Your task to perform on an android device: delete browsing data in the chrome app Image 0: 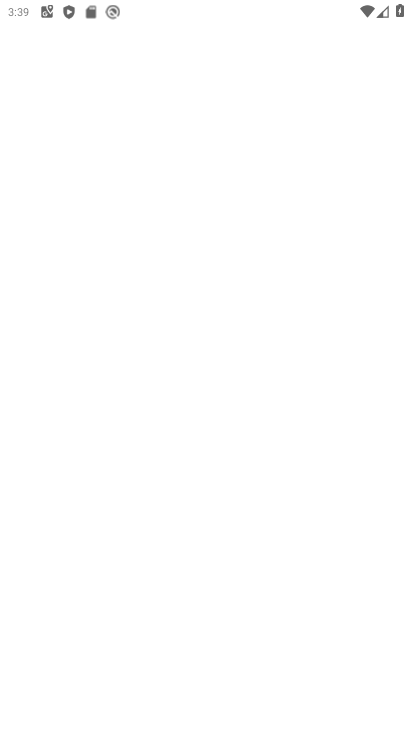
Step 0: press home button
Your task to perform on an android device: delete browsing data in the chrome app Image 1: 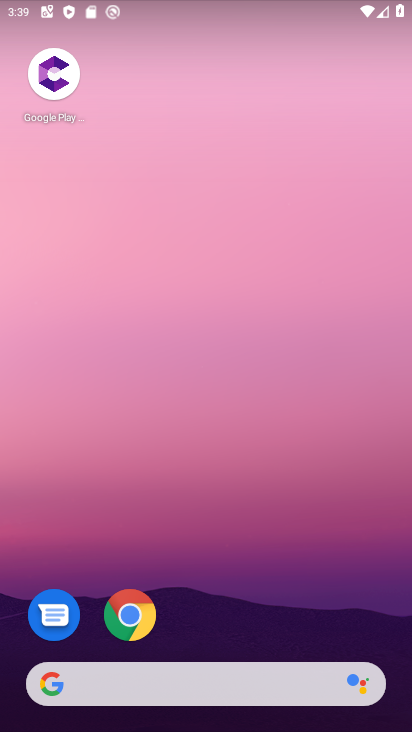
Step 1: click (139, 627)
Your task to perform on an android device: delete browsing data in the chrome app Image 2: 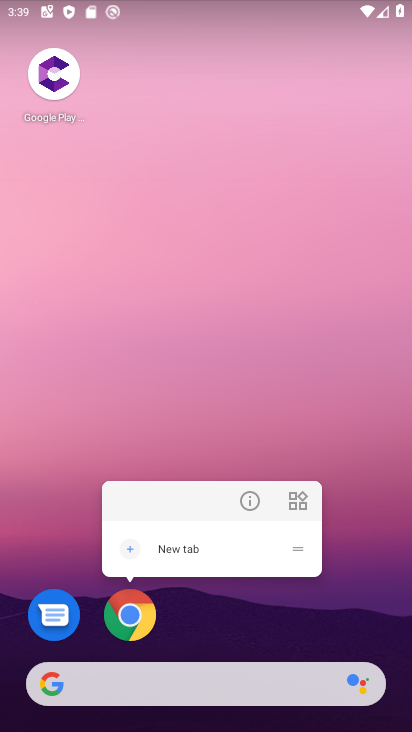
Step 2: click (135, 620)
Your task to perform on an android device: delete browsing data in the chrome app Image 3: 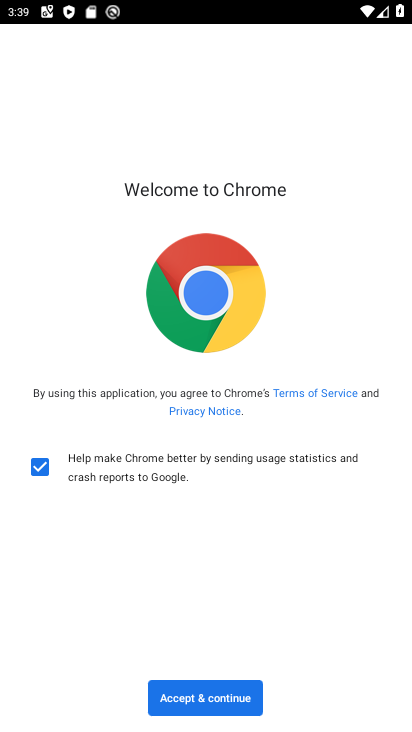
Step 3: click (224, 713)
Your task to perform on an android device: delete browsing data in the chrome app Image 4: 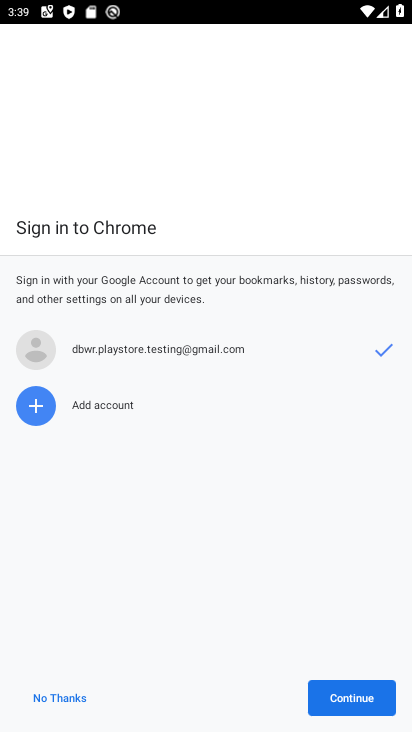
Step 4: click (362, 704)
Your task to perform on an android device: delete browsing data in the chrome app Image 5: 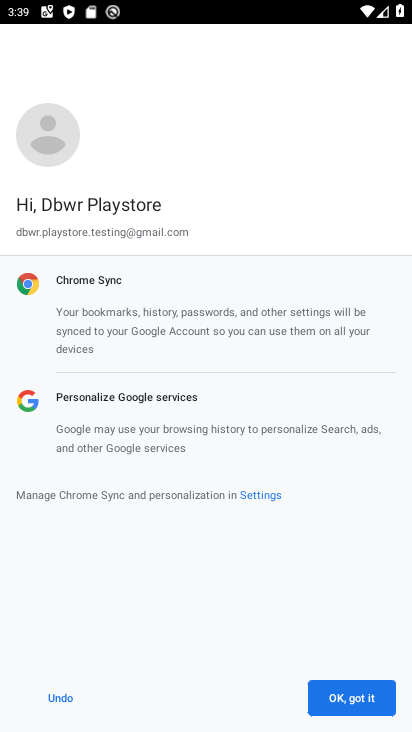
Step 5: click (400, 699)
Your task to perform on an android device: delete browsing data in the chrome app Image 6: 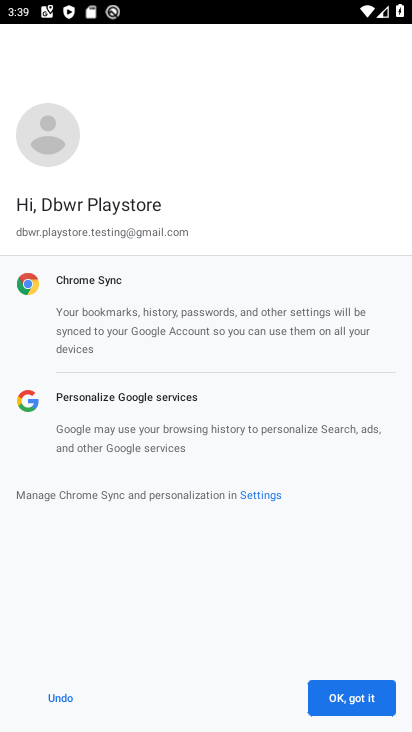
Step 6: click (361, 701)
Your task to perform on an android device: delete browsing data in the chrome app Image 7: 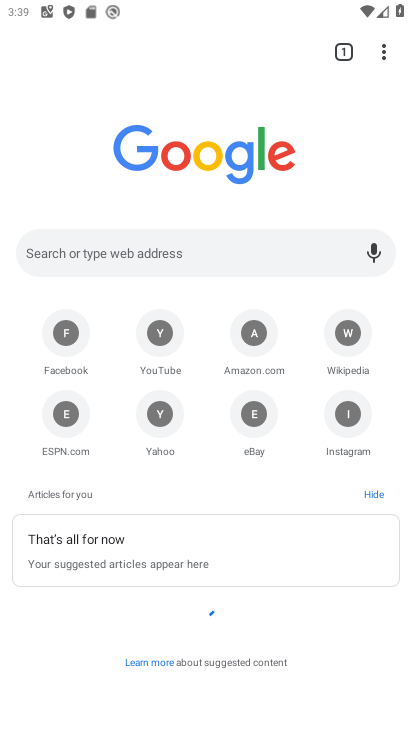
Step 7: drag from (387, 53) to (226, 460)
Your task to perform on an android device: delete browsing data in the chrome app Image 8: 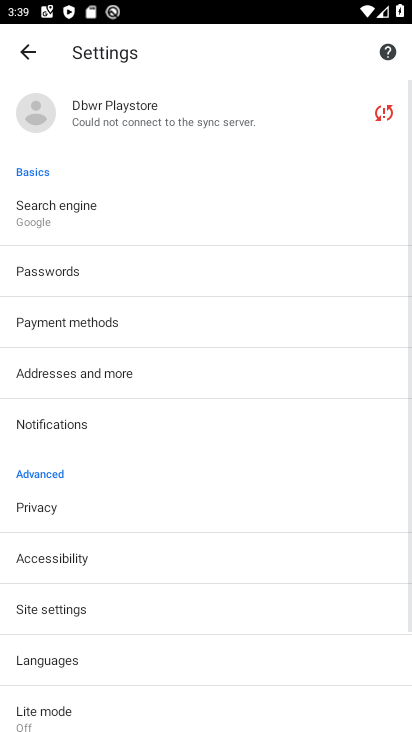
Step 8: drag from (104, 664) to (210, 390)
Your task to perform on an android device: delete browsing data in the chrome app Image 9: 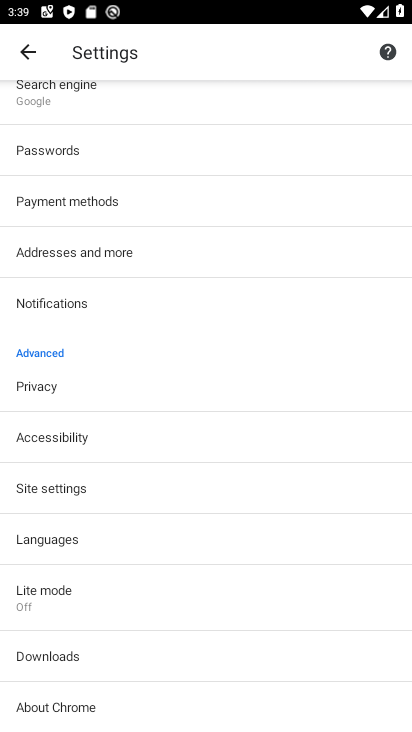
Step 9: click (90, 392)
Your task to perform on an android device: delete browsing data in the chrome app Image 10: 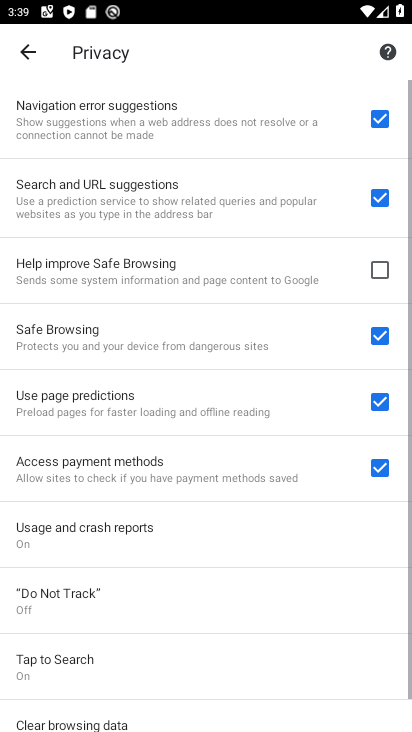
Step 10: drag from (88, 633) to (201, 242)
Your task to perform on an android device: delete browsing data in the chrome app Image 11: 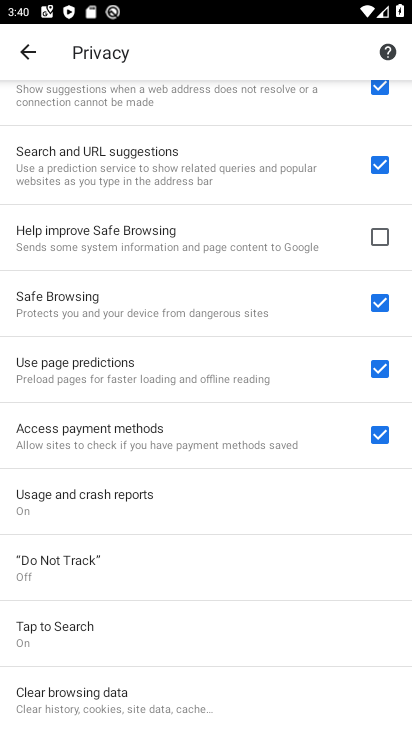
Step 11: click (136, 691)
Your task to perform on an android device: delete browsing data in the chrome app Image 12: 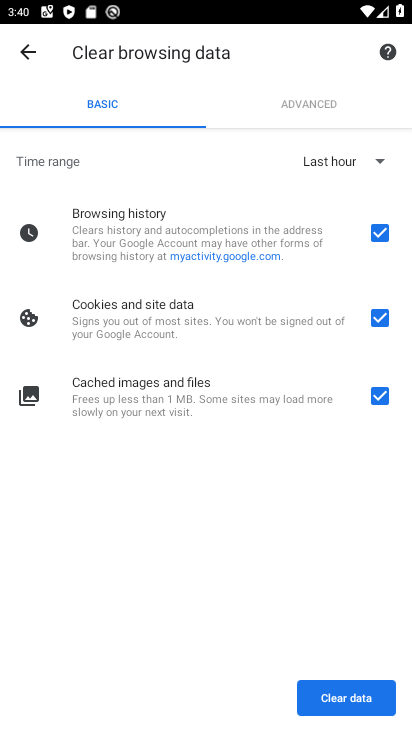
Step 12: click (341, 687)
Your task to perform on an android device: delete browsing data in the chrome app Image 13: 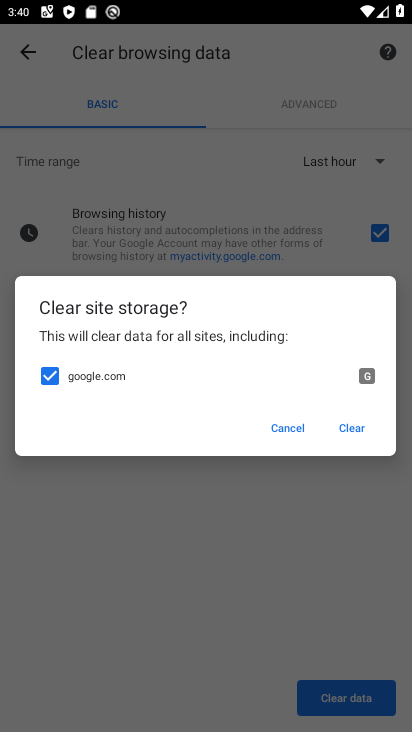
Step 13: click (353, 425)
Your task to perform on an android device: delete browsing data in the chrome app Image 14: 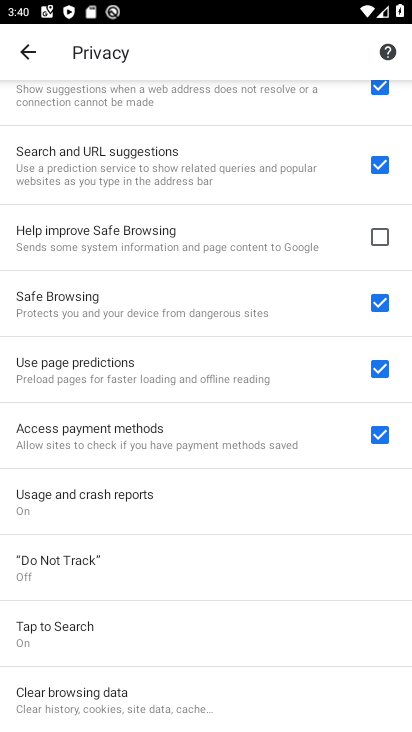
Step 14: task complete